Your task to perform on an android device: Open calendar and show me the second week of next month Image 0: 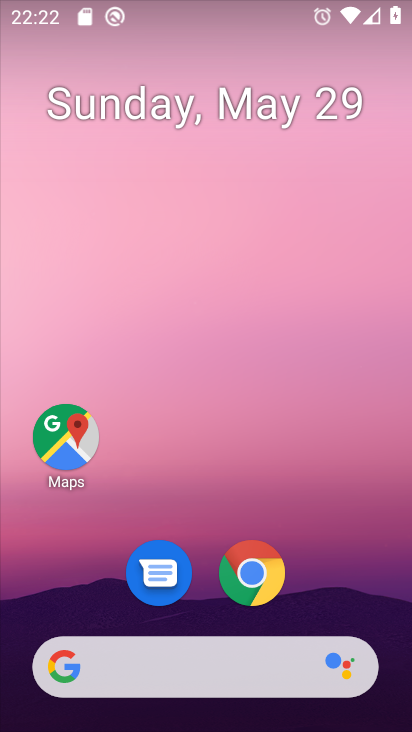
Step 0: drag from (220, 468) to (222, 15)
Your task to perform on an android device: Open calendar and show me the second week of next month Image 1: 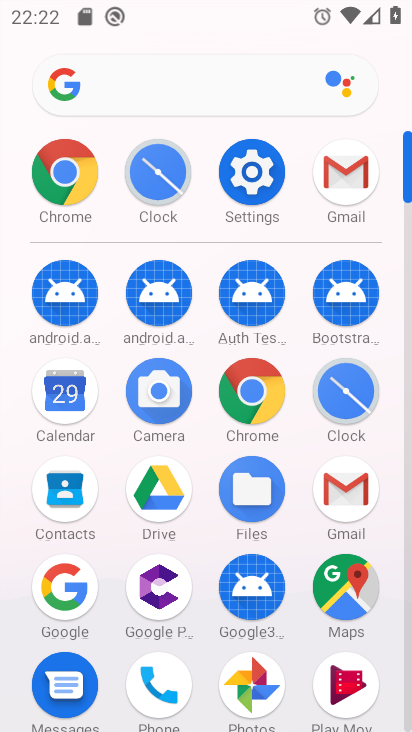
Step 1: click (69, 402)
Your task to perform on an android device: Open calendar and show me the second week of next month Image 2: 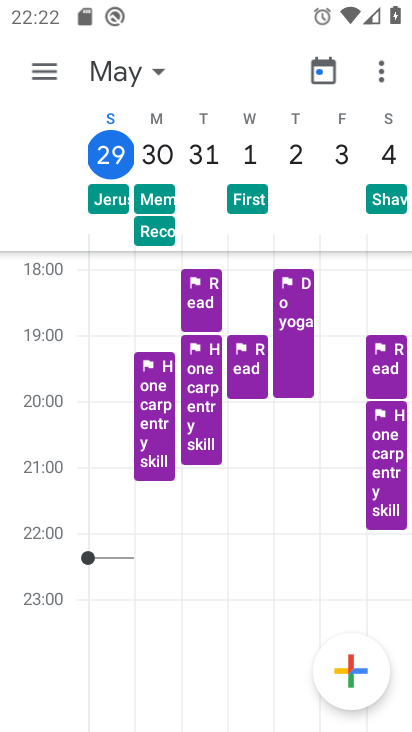
Step 2: task complete